Your task to perform on an android device: Check the news Image 0: 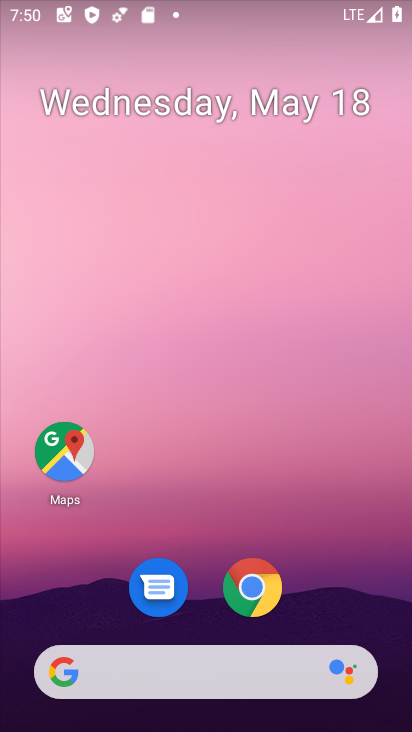
Step 0: click (180, 659)
Your task to perform on an android device: Check the news Image 1: 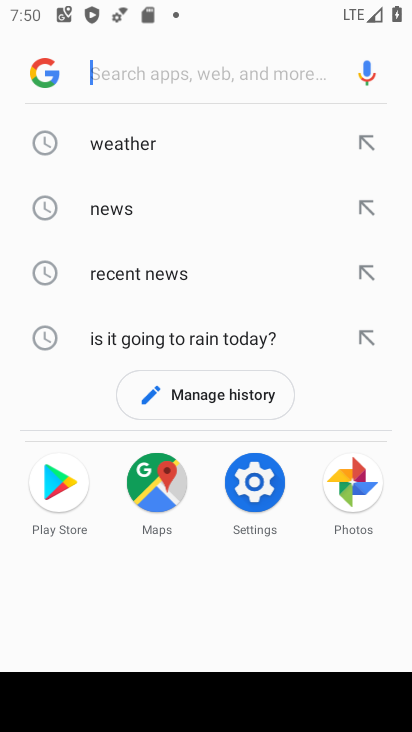
Step 1: click (119, 204)
Your task to perform on an android device: Check the news Image 2: 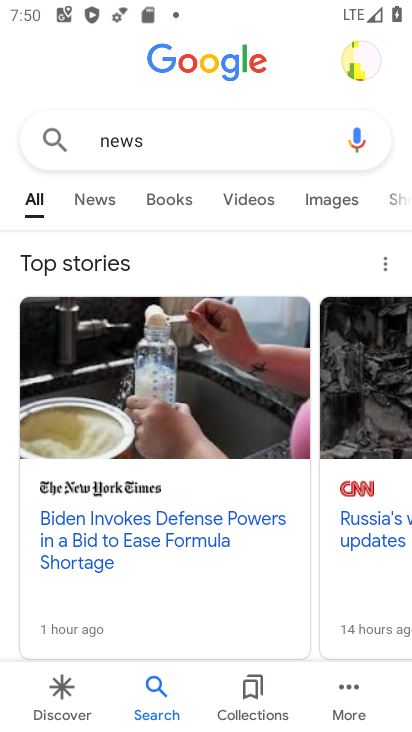
Step 2: task complete